Your task to perform on an android device: change notification settings in the gmail app Image 0: 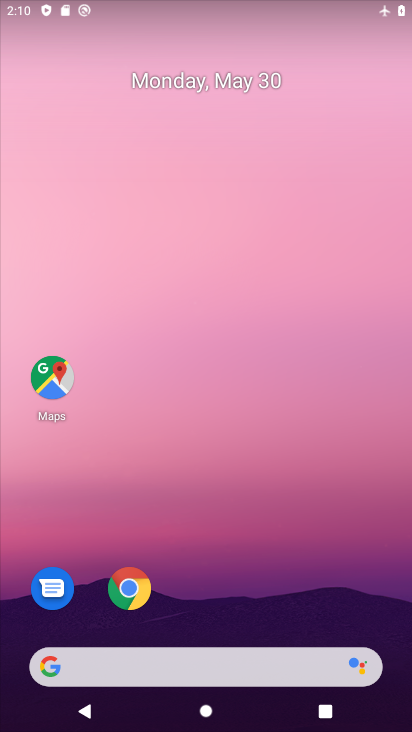
Step 0: drag from (212, 624) to (247, 254)
Your task to perform on an android device: change notification settings in the gmail app Image 1: 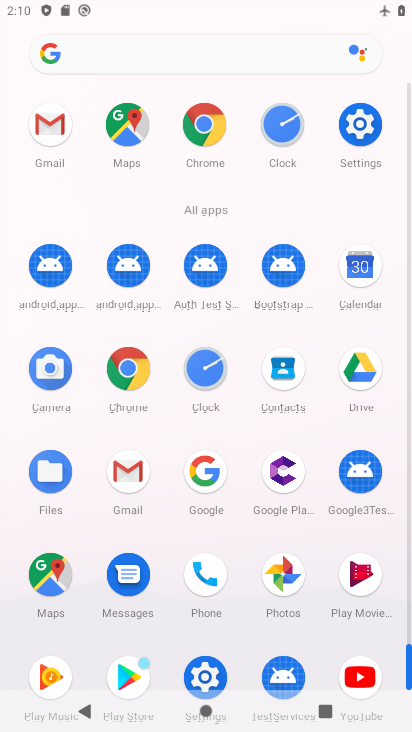
Step 1: click (130, 462)
Your task to perform on an android device: change notification settings in the gmail app Image 2: 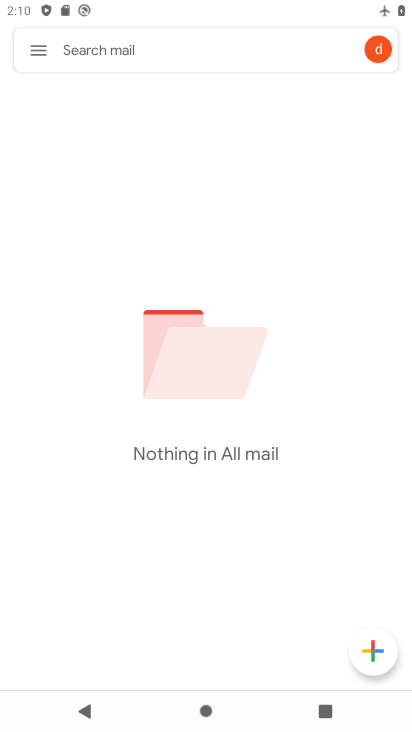
Step 2: click (32, 53)
Your task to perform on an android device: change notification settings in the gmail app Image 3: 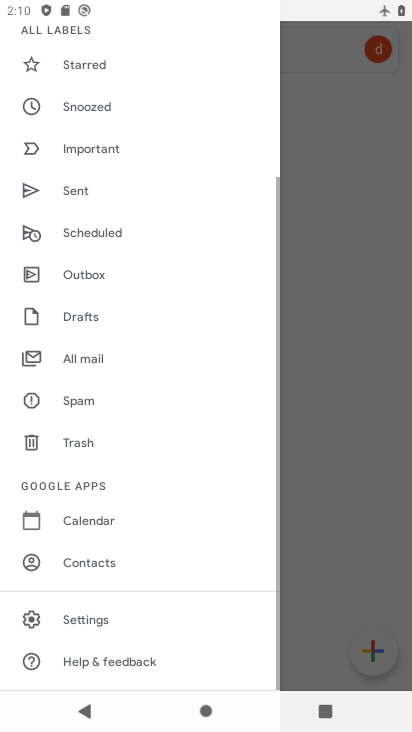
Step 3: click (91, 608)
Your task to perform on an android device: change notification settings in the gmail app Image 4: 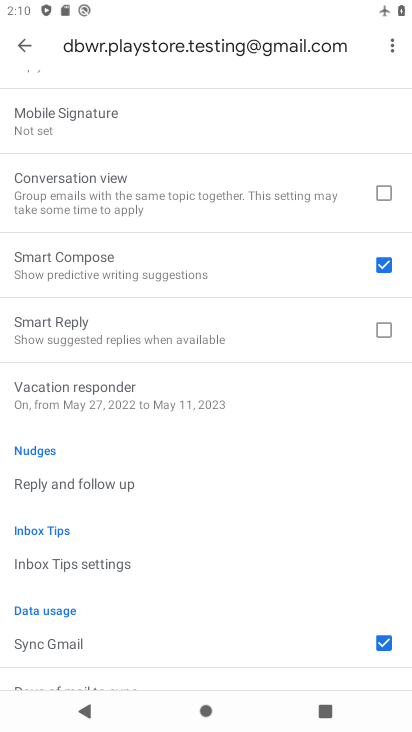
Step 4: drag from (104, 217) to (129, 533)
Your task to perform on an android device: change notification settings in the gmail app Image 5: 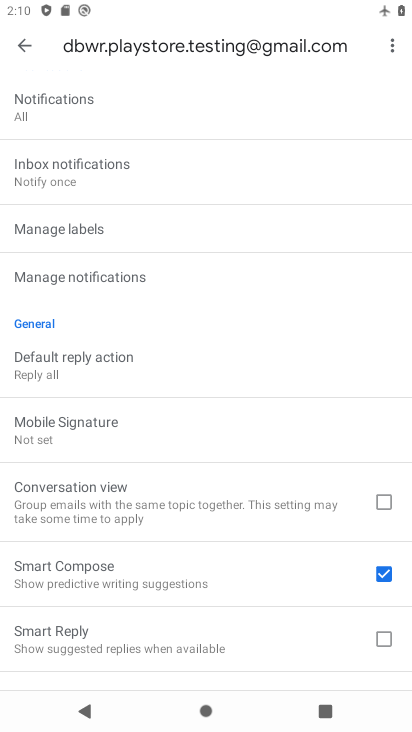
Step 5: drag from (132, 166) to (128, 599)
Your task to perform on an android device: change notification settings in the gmail app Image 6: 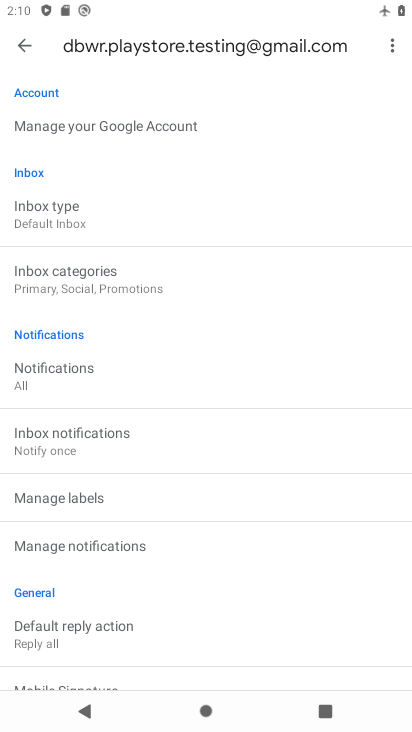
Step 6: drag from (141, 178) to (178, 608)
Your task to perform on an android device: change notification settings in the gmail app Image 7: 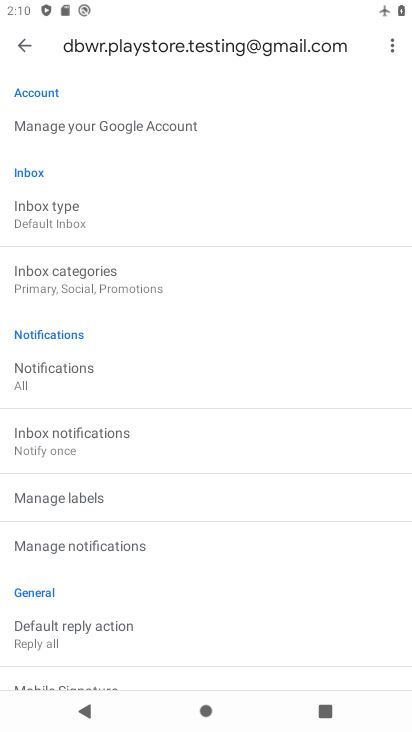
Step 7: click (81, 376)
Your task to perform on an android device: change notification settings in the gmail app Image 8: 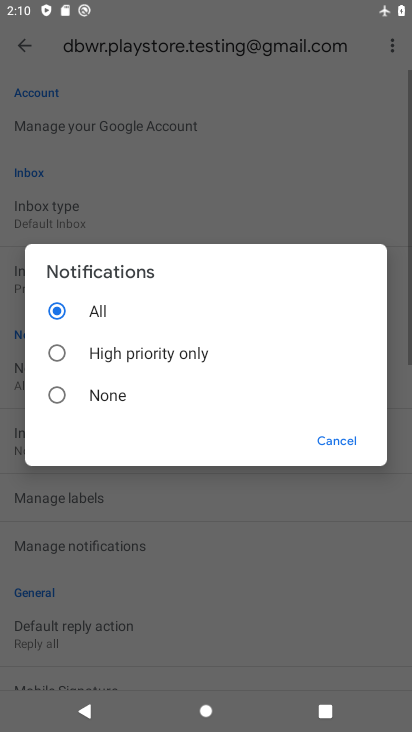
Step 8: click (89, 387)
Your task to perform on an android device: change notification settings in the gmail app Image 9: 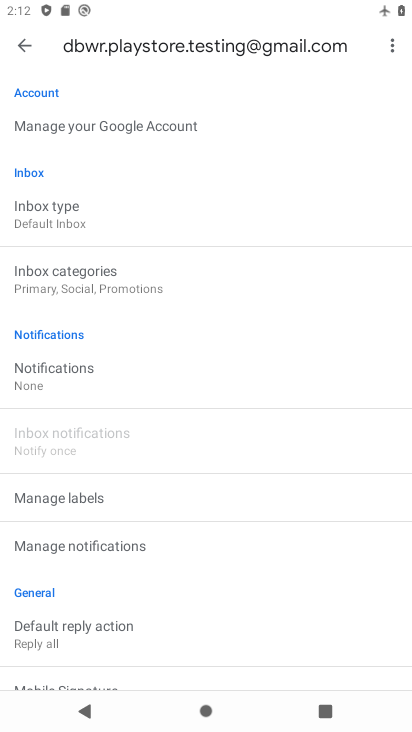
Step 9: task complete